Your task to perform on an android device: allow notifications from all sites in the chrome app Image 0: 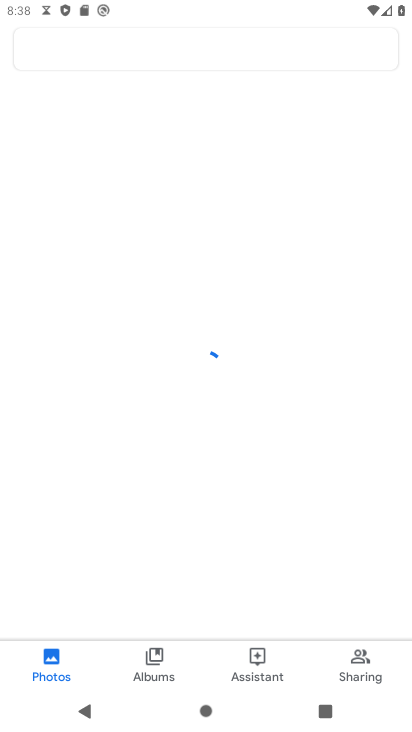
Step 0: press back button
Your task to perform on an android device: allow notifications from all sites in the chrome app Image 1: 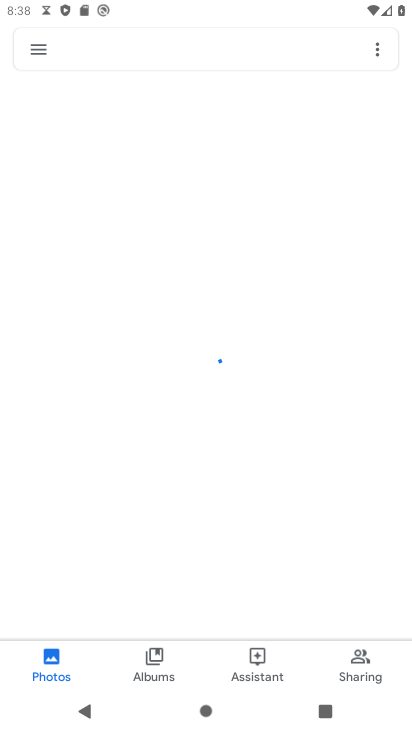
Step 1: press back button
Your task to perform on an android device: allow notifications from all sites in the chrome app Image 2: 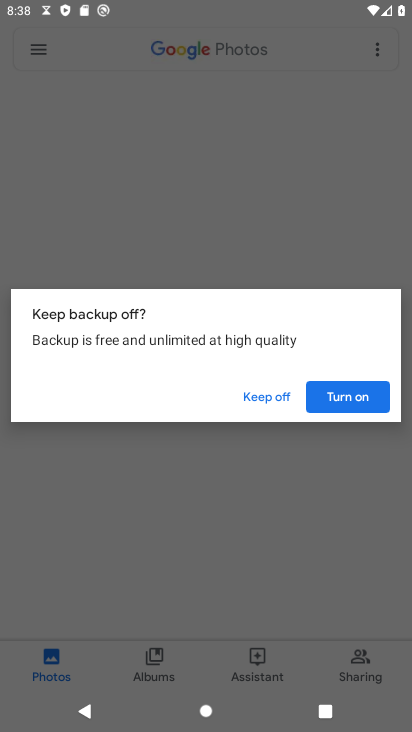
Step 2: press home button
Your task to perform on an android device: allow notifications from all sites in the chrome app Image 3: 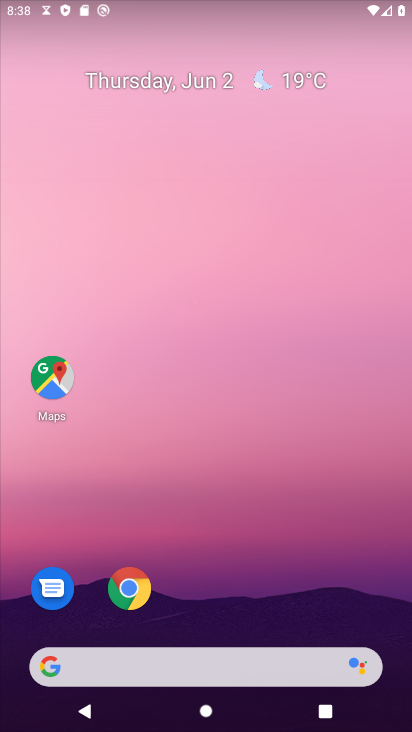
Step 3: drag from (251, 616) to (272, 179)
Your task to perform on an android device: allow notifications from all sites in the chrome app Image 4: 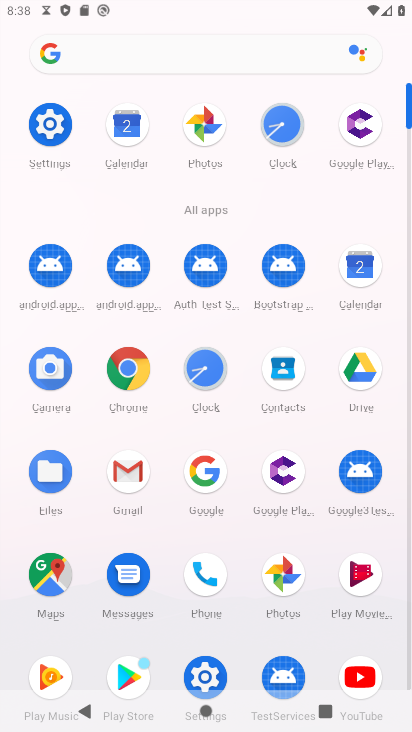
Step 4: click (124, 371)
Your task to perform on an android device: allow notifications from all sites in the chrome app Image 5: 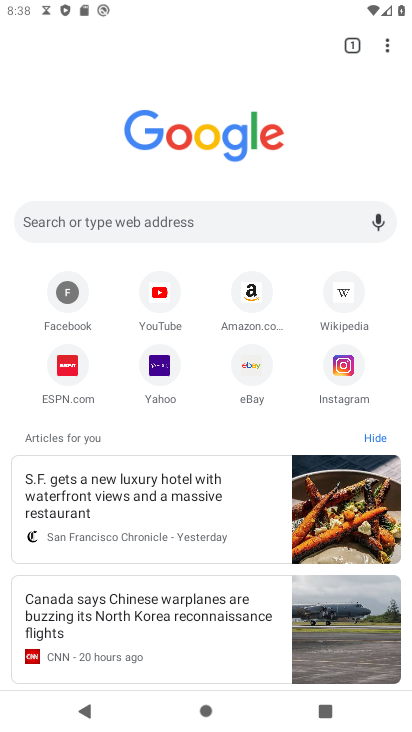
Step 5: drag from (386, 45) to (227, 369)
Your task to perform on an android device: allow notifications from all sites in the chrome app Image 6: 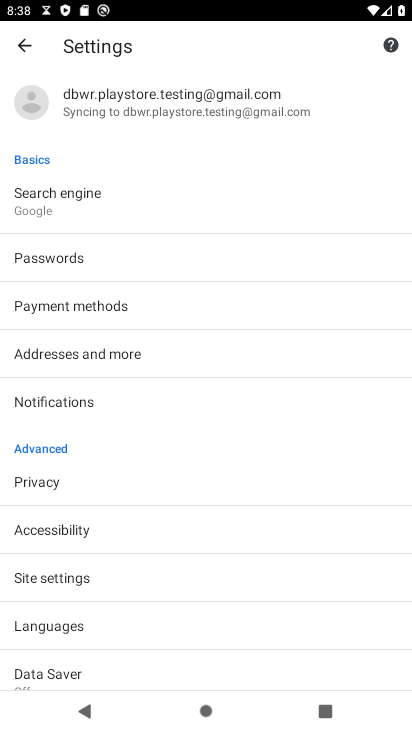
Step 6: click (93, 399)
Your task to perform on an android device: allow notifications from all sites in the chrome app Image 7: 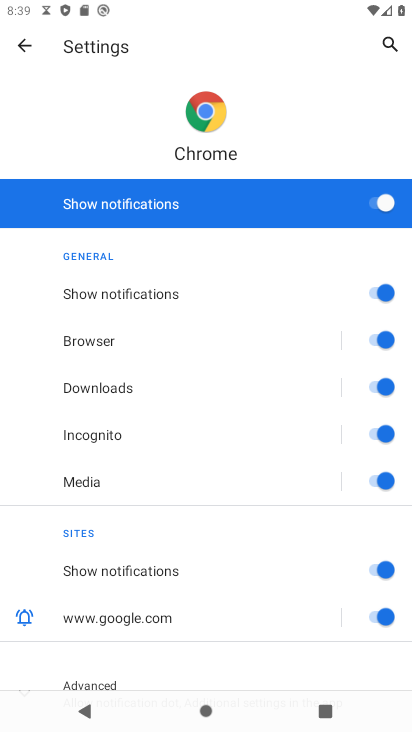
Step 7: task complete